Your task to perform on an android device: Open the phone app and click the voicemail tab. Image 0: 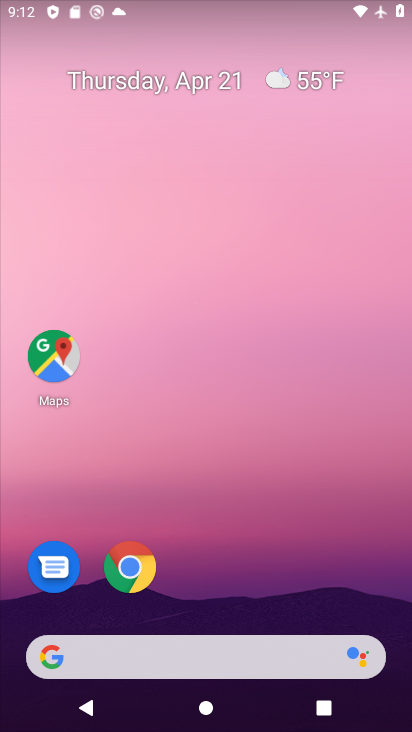
Step 0: drag from (348, 602) to (283, 171)
Your task to perform on an android device: Open the phone app and click the voicemail tab. Image 1: 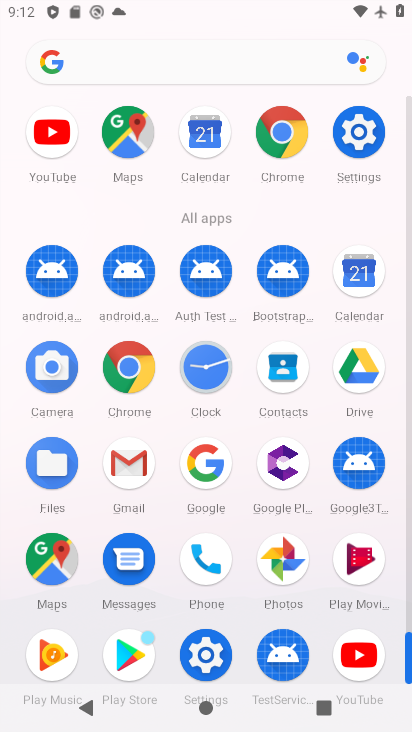
Step 1: click (206, 562)
Your task to perform on an android device: Open the phone app and click the voicemail tab. Image 2: 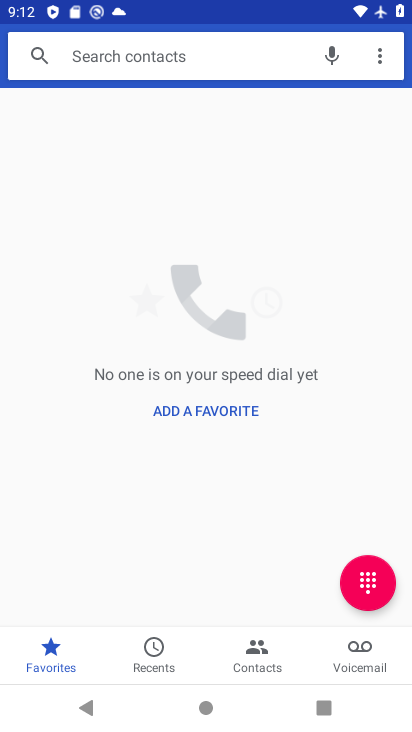
Step 2: click (365, 645)
Your task to perform on an android device: Open the phone app and click the voicemail tab. Image 3: 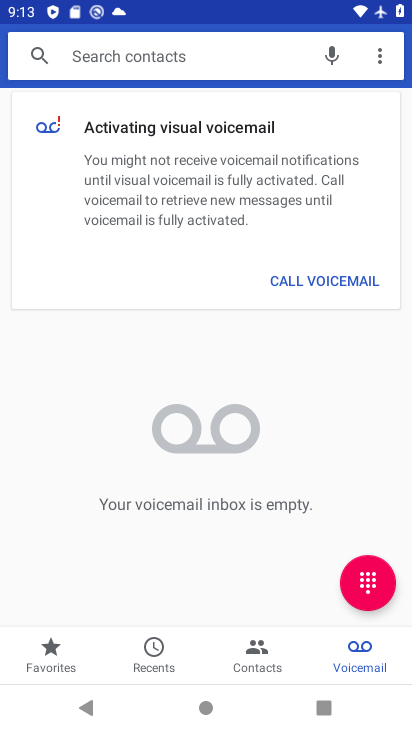
Step 3: task complete